Your task to perform on an android device: delete the emails in spam in the gmail app Image 0: 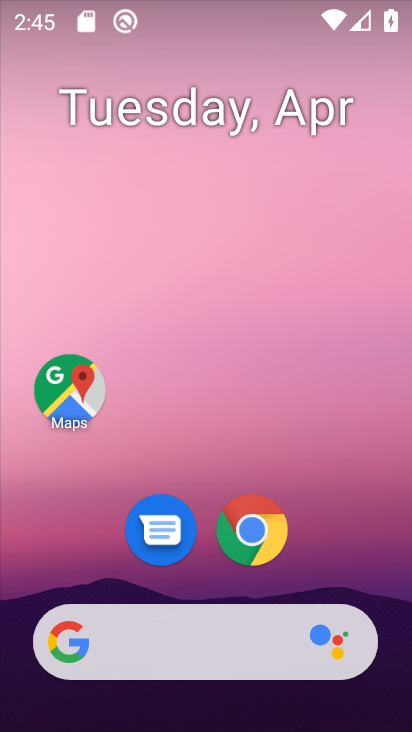
Step 0: drag from (210, 233) to (210, 33)
Your task to perform on an android device: delete the emails in spam in the gmail app Image 1: 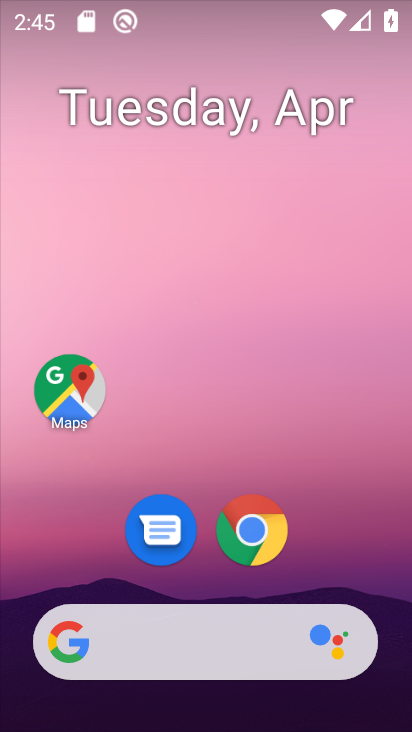
Step 1: drag from (212, 706) to (215, 68)
Your task to perform on an android device: delete the emails in spam in the gmail app Image 2: 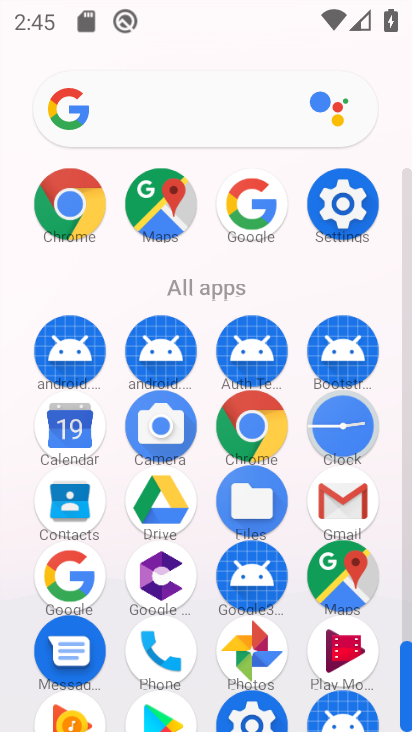
Step 2: click (344, 503)
Your task to perform on an android device: delete the emails in spam in the gmail app Image 3: 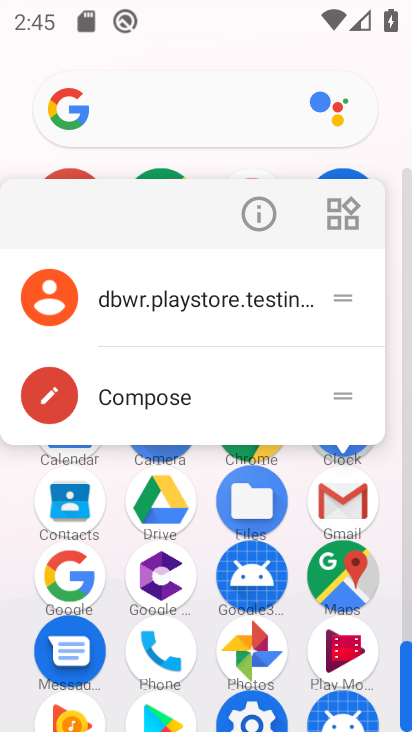
Step 3: click (345, 497)
Your task to perform on an android device: delete the emails in spam in the gmail app Image 4: 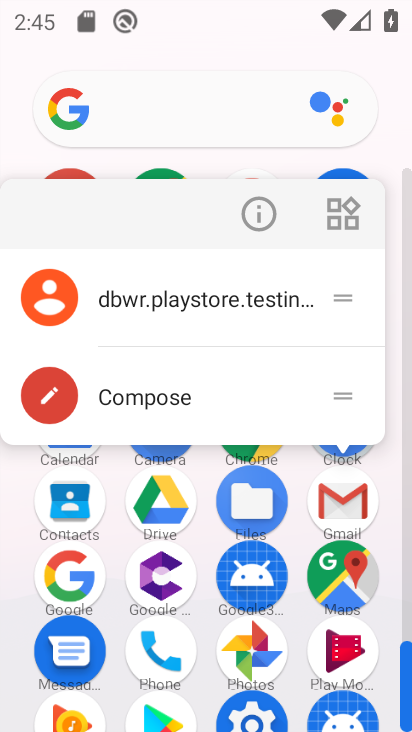
Step 4: click (354, 508)
Your task to perform on an android device: delete the emails in spam in the gmail app Image 5: 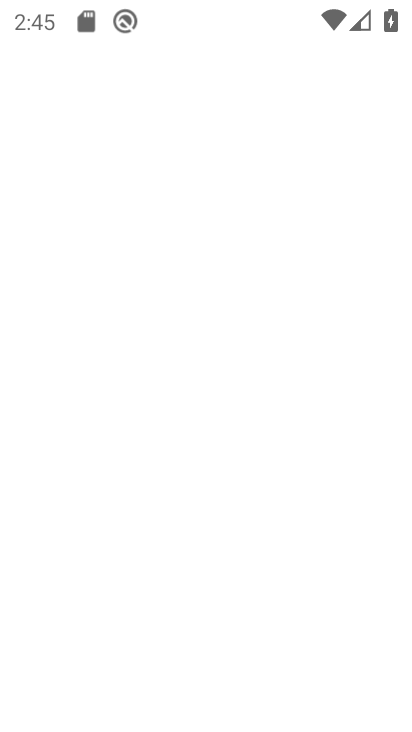
Step 5: click (354, 508)
Your task to perform on an android device: delete the emails in spam in the gmail app Image 6: 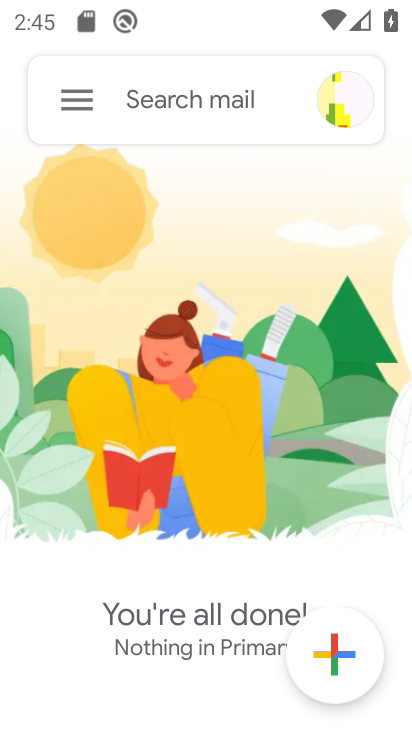
Step 6: click (68, 97)
Your task to perform on an android device: delete the emails in spam in the gmail app Image 7: 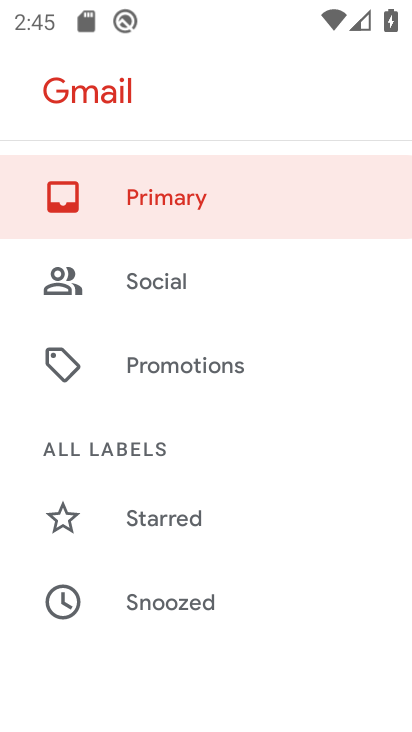
Step 7: drag from (156, 406) to (156, 136)
Your task to perform on an android device: delete the emails in spam in the gmail app Image 8: 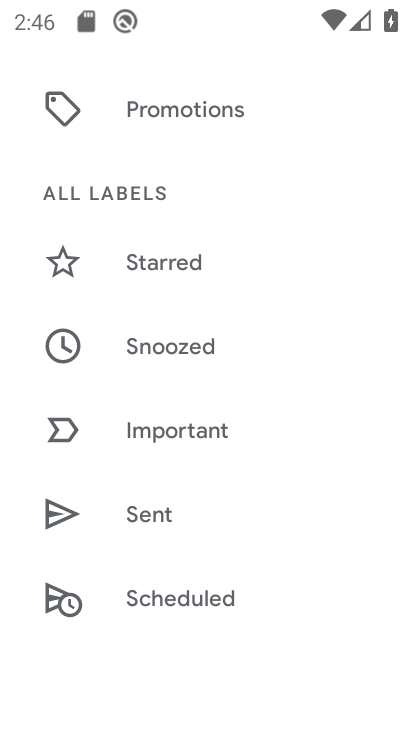
Step 8: drag from (188, 608) to (188, 211)
Your task to perform on an android device: delete the emails in spam in the gmail app Image 9: 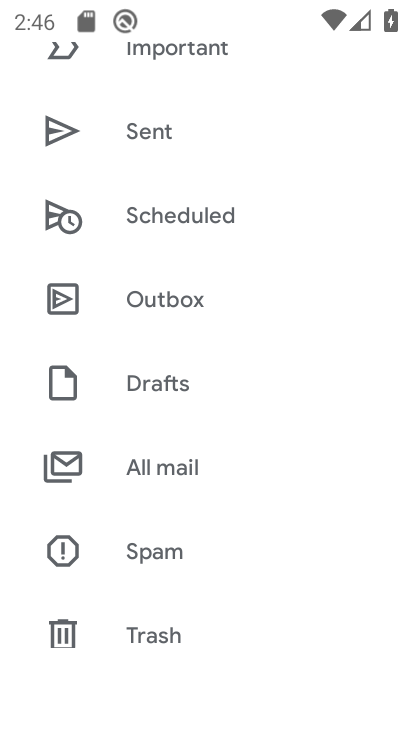
Step 9: drag from (171, 597) to (157, 308)
Your task to perform on an android device: delete the emails in spam in the gmail app Image 10: 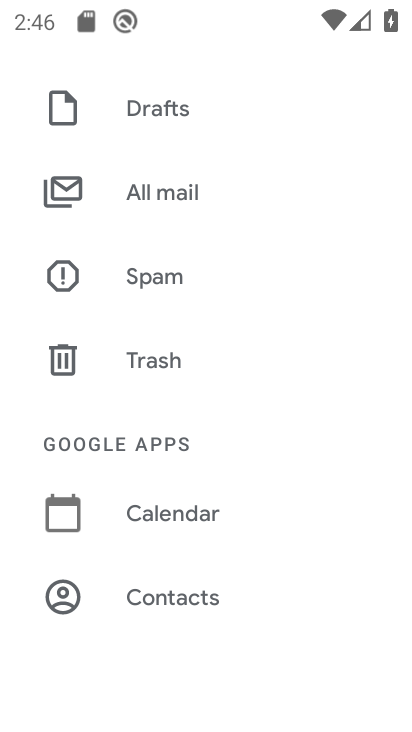
Step 10: click (155, 280)
Your task to perform on an android device: delete the emails in spam in the gmail app Image 11: 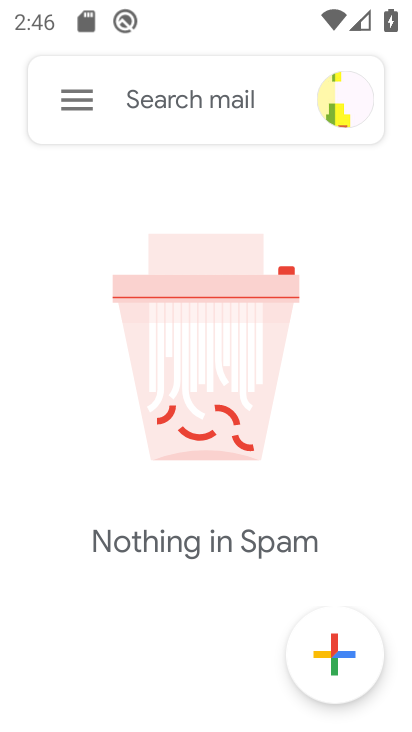
Step 11: task complete